Your task to perform on an android device: check data usage Image 0: 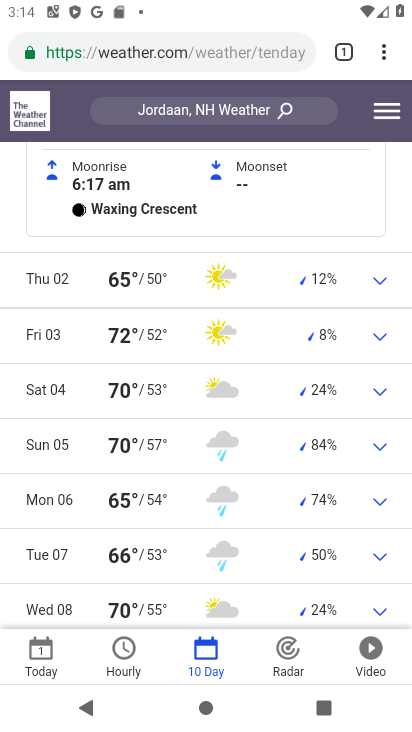
Step 0: press back button
Your task to perform on an android device: check data usage Image 1: 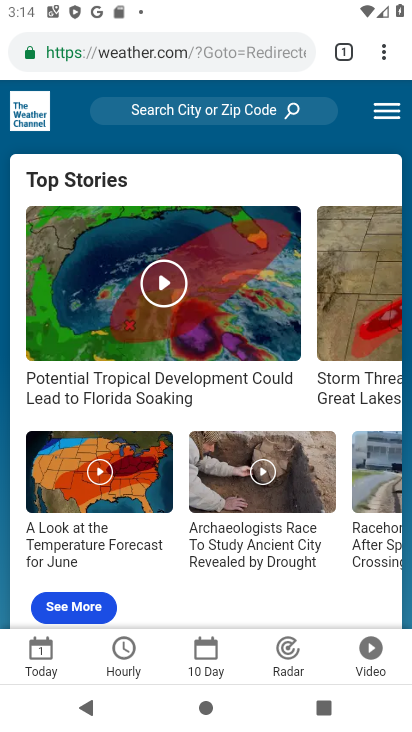
Step 1: press home button
Your task to perform on an android device: check data usage Image 2: 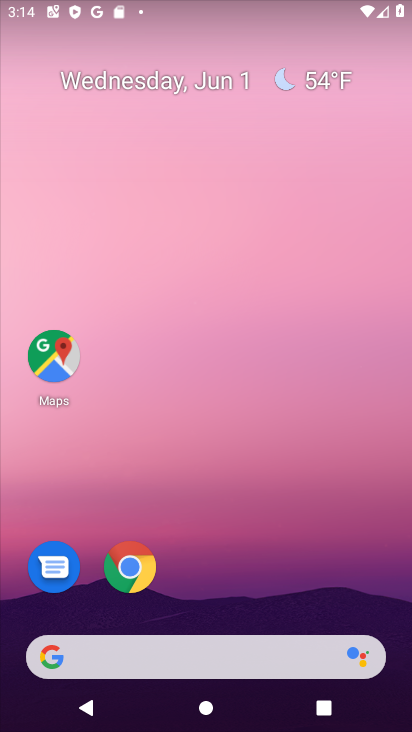
Step 2: drag from (199, 632) to (295, 211)
Your task to perform on an android device: check data usage Image 3: 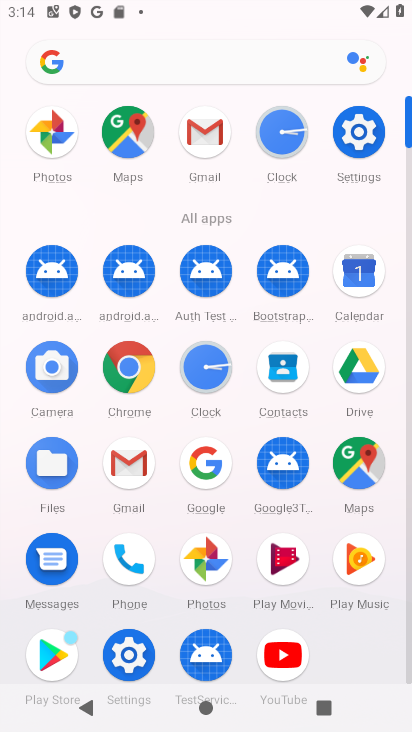
Step 3: click (120, 668)
Your task to perform on an android device: check data usage Image 4: 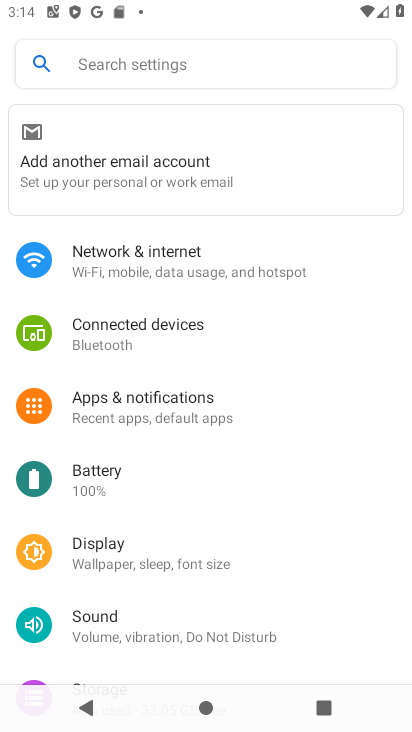
Step 4: click (220, 257)
Your task to perform on an android device: check data usage Image 5: 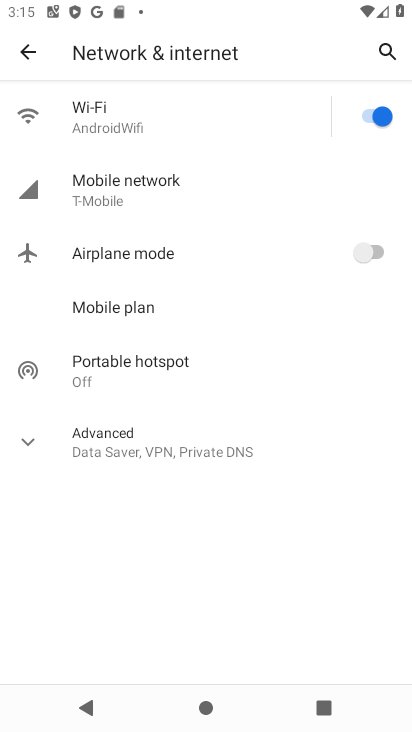
Step 5: click (185, 208)
Your task to perform on an android device: check data usage Image 6: 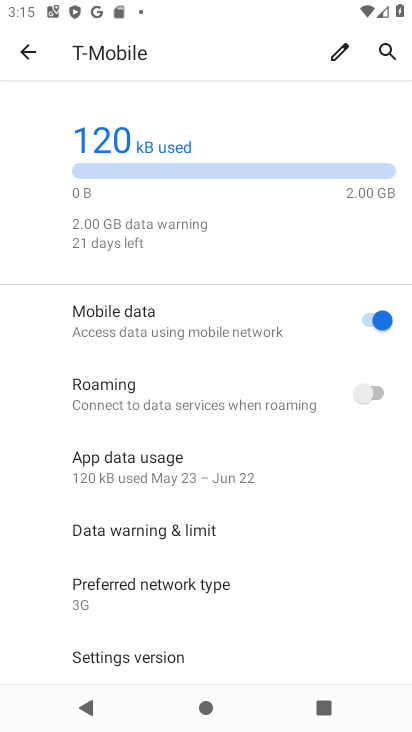
Step 6: drag from (205, 471) to (247, 322)
Your task to perform on an android device: check data usage Image 7: 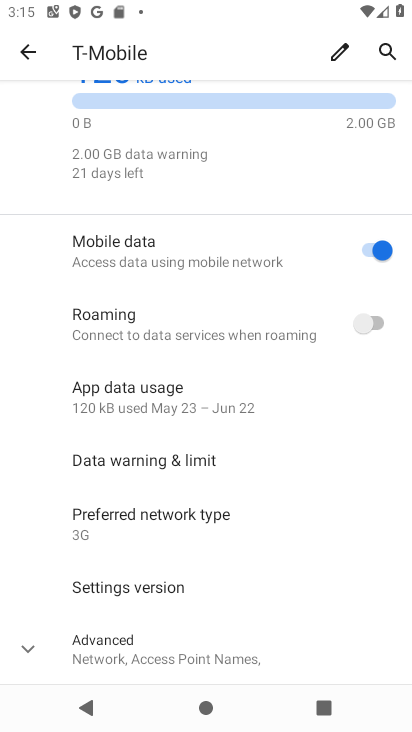
Step 7: click (230, 398)
Your task to perform on an android device: check data usage Image 8: 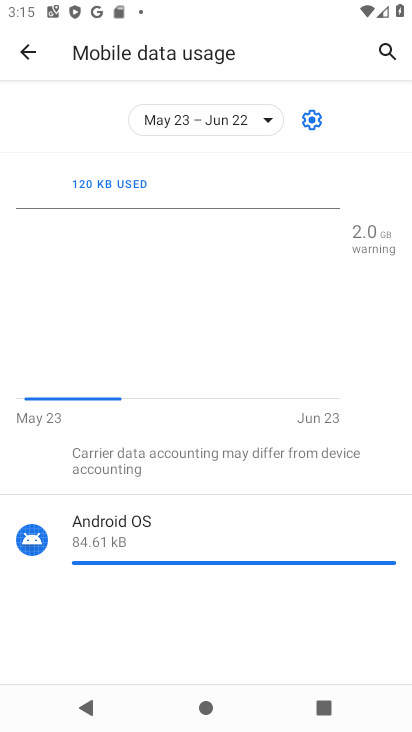
Step 8: task complete